Your task to perform on an android device: set default search engine in the chrome app Image 0: 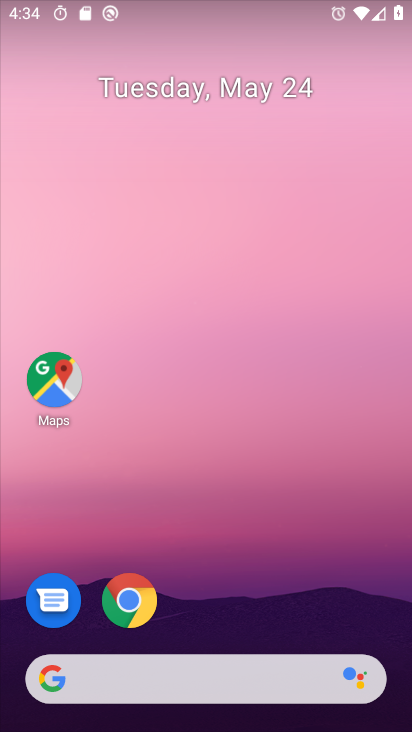
Step 0: drag from (259, 633) to (262, 2)
Your task to perform on an android device: set default search engine in the chrome app Image 1: 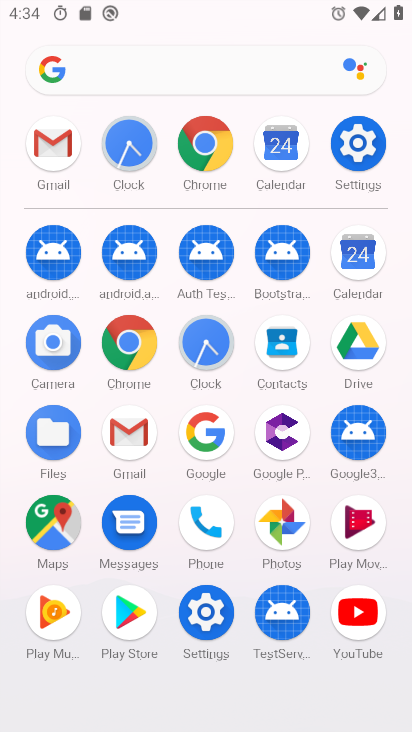
Step 1: click (139, 334)
Your task to perform on an android device: set default search engine in the chrome app Image 2: 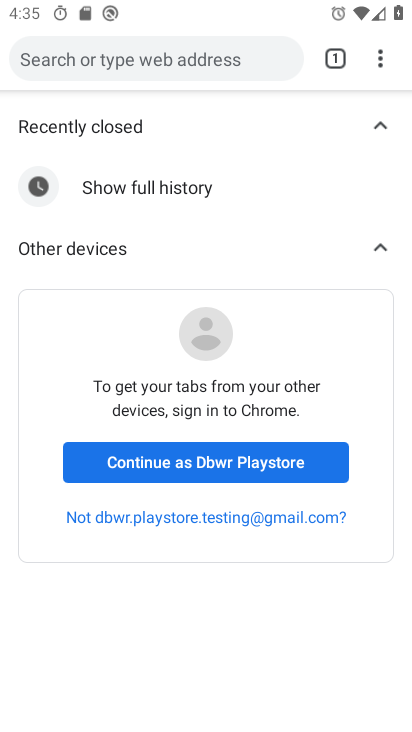
Step 2: click (380, 52)
Your task to perform on an android device: set default search engine in the chrome app Image 3: 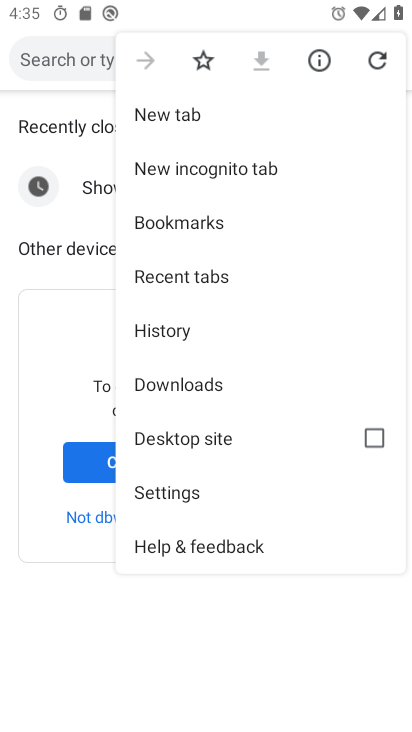
Step 3: click (218, 504)
Your task to perform on an android device: set default search engine in the chrome app Image 4: 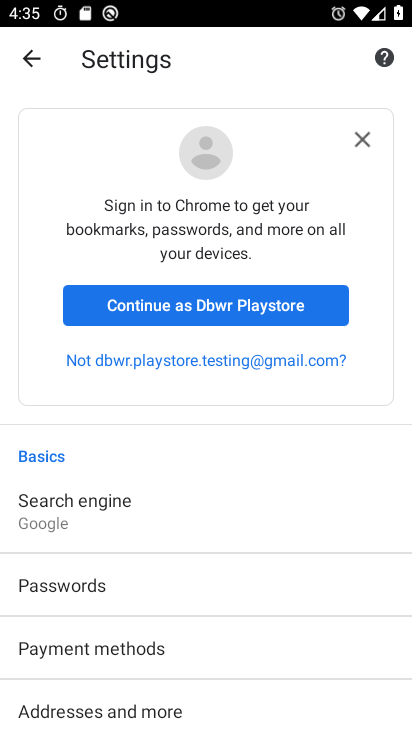
Step 4: click (136, 522)
Your task to perform on an android device: set default search engine in the chrome app Image 5: 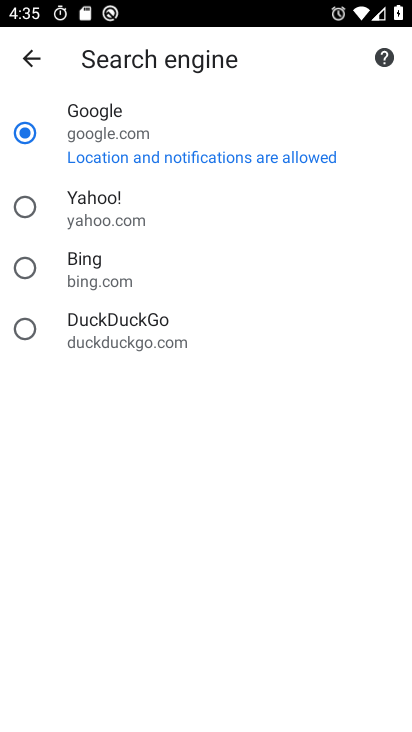
Step 5: task complete